Your task to perform on an android device: Toggle the flashlight Image 0: 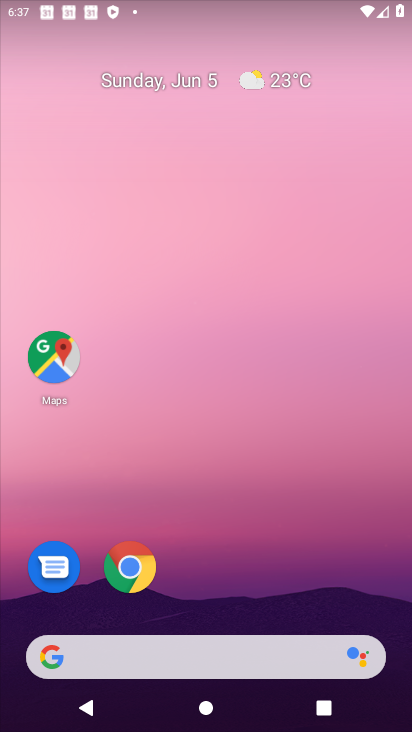
Step 0: drag from (373, 593) to (285, 67)
Your task to perform on an android device: Toggle the flashlight Image 1: 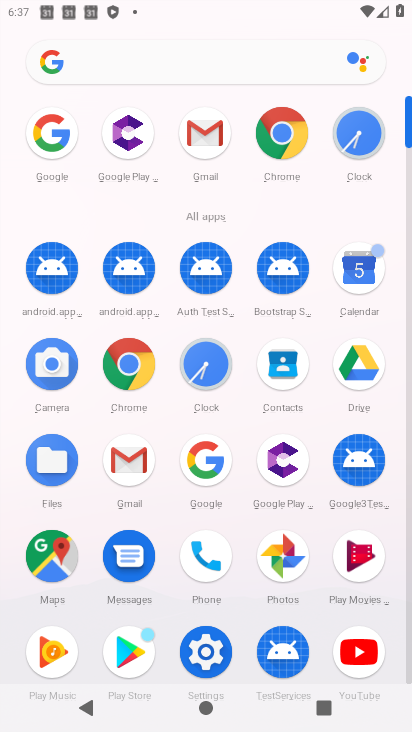
Step 1: click (199, 644)
Your task to perform on an android device: Toggle the flashlight Image 2: 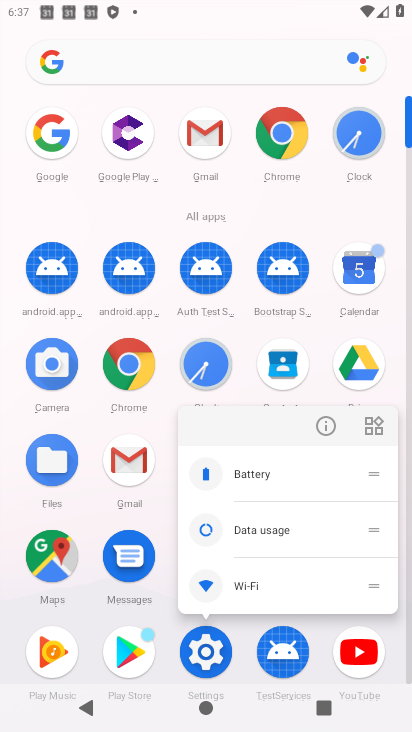
Step 2: click (197, 643)
Your task to perform on an android device: Toggle the flashlight Image 3: 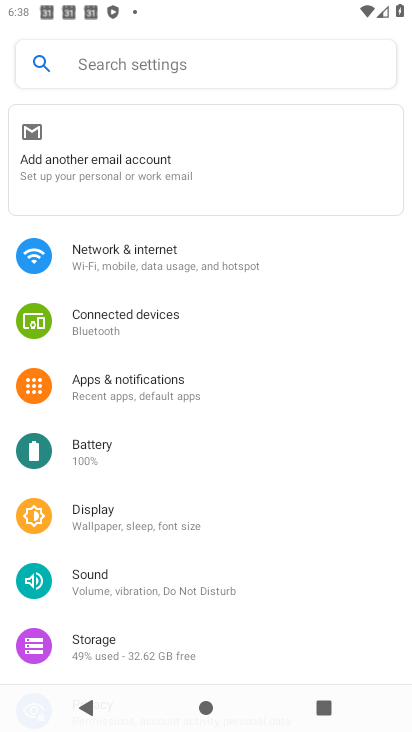
Step 3: task complete